Your task to perform on an android device: What's the weather going to be this weekend? Image 0: 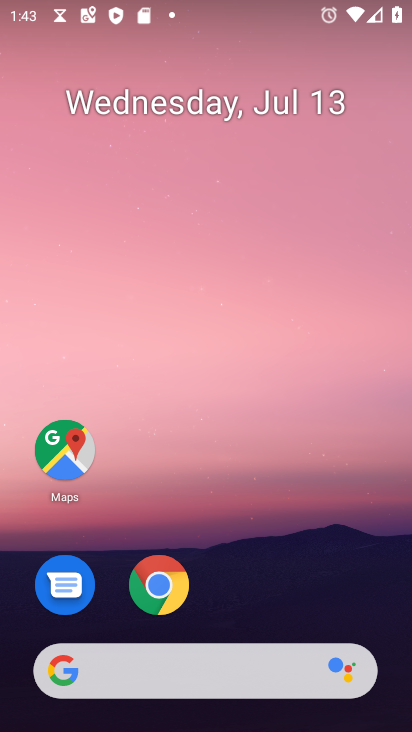
Step 0: click (186, 661)
Your task to perform on an android device: What's the weather going to be this weekend? Image 1: 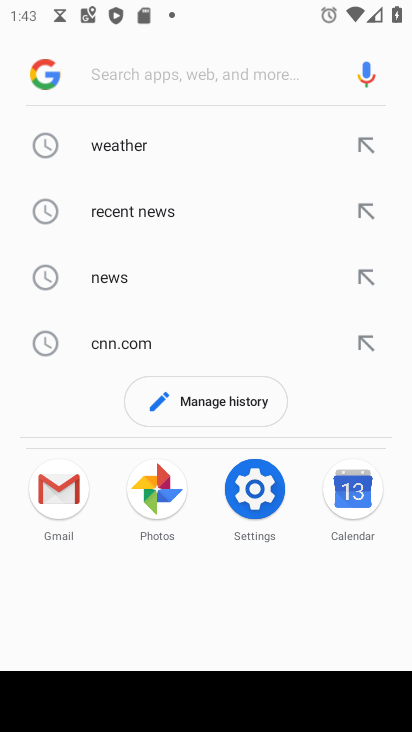
Step 1: click (109, 148)
Your task to perform on an android device: What's the weather going to be this weekend? Image 2: 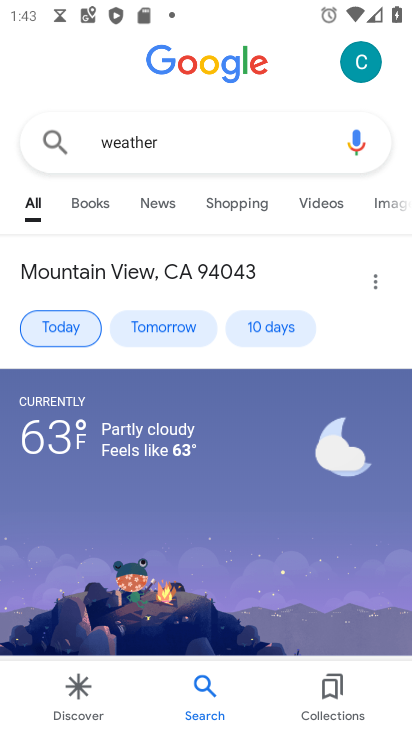
Step 2: click (270, 331)
Your task to perform on an android device: What's the weather going to be this weekend? Image 3: 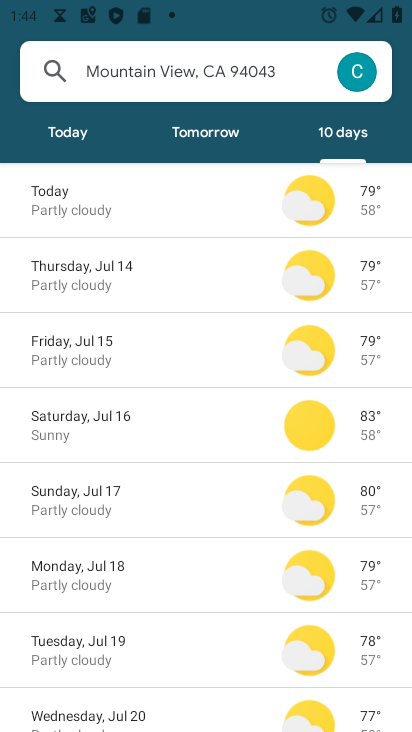
Step 3: click (126, 418)
Your task to perform on an android device: What's the weather going to be this weekend? Image 4: 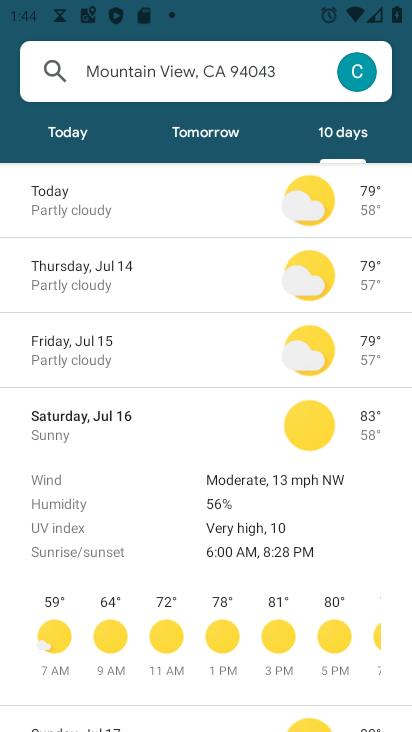
Step 4: task complete